Your task to perform on an android device: toggle data saver in the chrome app Image 0: 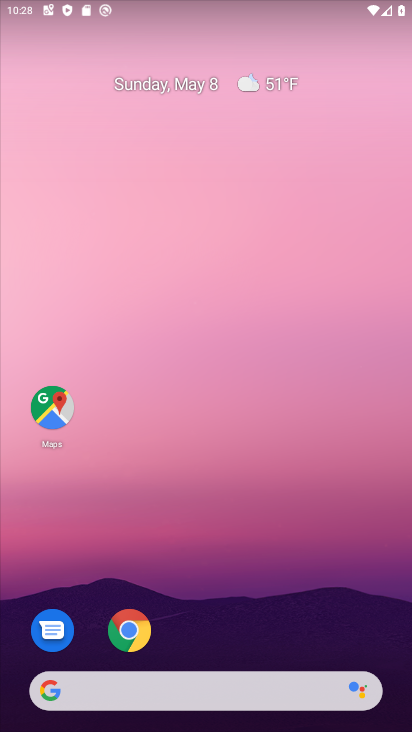
Step 0: drag from (380, 616) to (214, 75)
Your task to perform on an android device: toggle data saver in the chrome app Image 1: 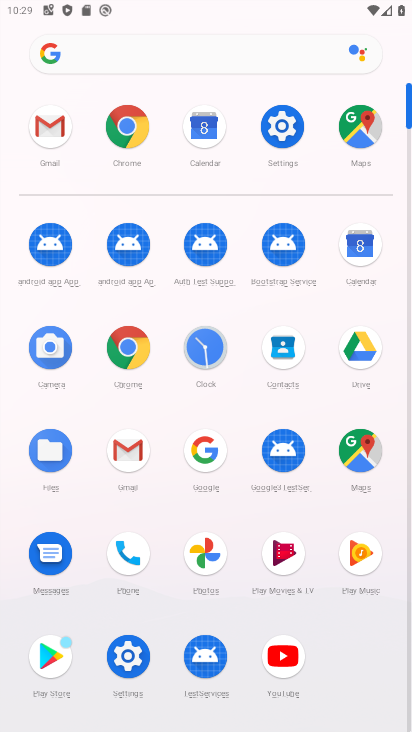
Step 1: click (116, 333)
Your task to perform on an android device: toggle data saver in the chrome app Image 2: 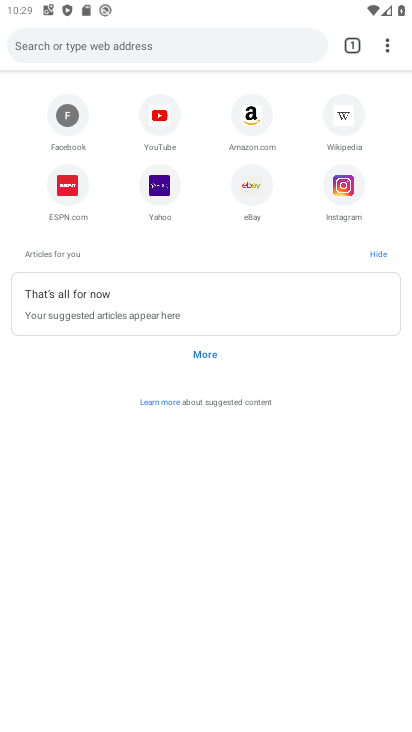
Step 2: click (390, 40)
Your task to perform on an android device: toggle data saver in the chrome app Image 3: 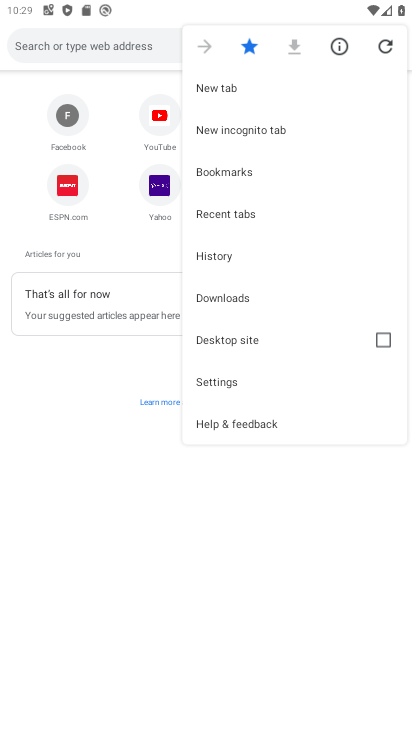
Step 3: click (243, 381)
Your task to perform on an android device: toggle data saver in the chrome app Image 4: 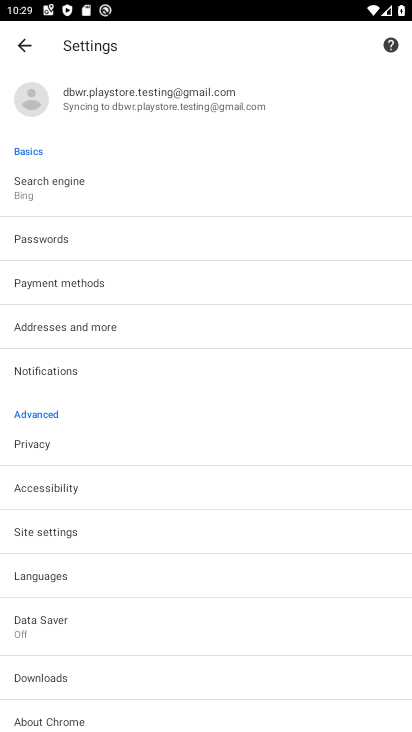
Step 4: click (112, 622)
Your task to perform on an android device: toggle data saver in the chrome app Image 5: 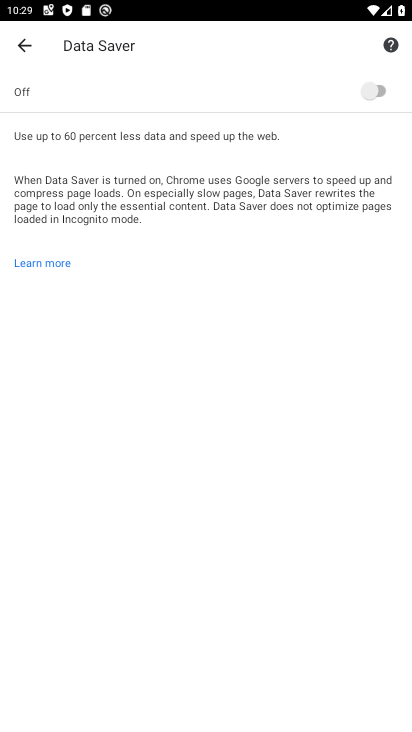
Step 5: click (349, 100)
Your task to perform on an android device: toggle data saver in the chrome app Image 6: 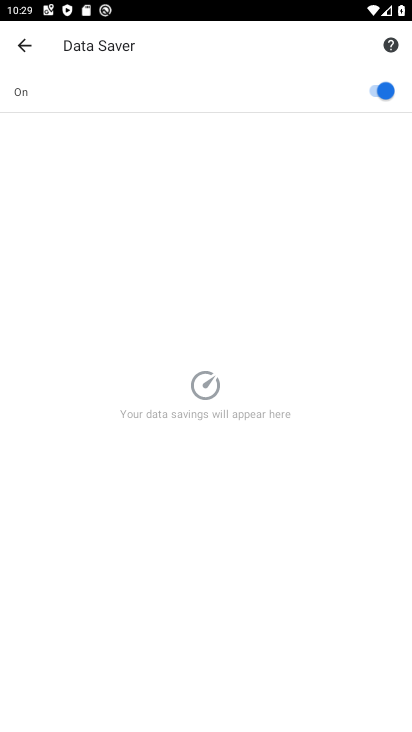
Step 6: task complete